Your task to perform on an android device: Open Google Chrome and click the shortcut for Amazon.com Image 0: 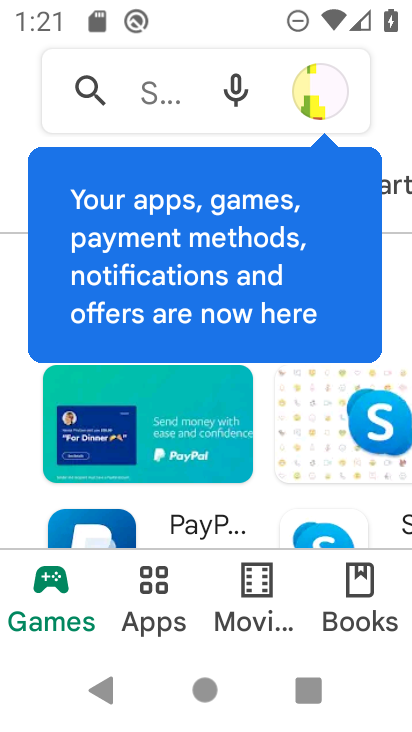
Step 0: click (173, 723)
Your task to perform on an android device: Open Google Chrome and click the shortcut for Amazon.com Image 1: 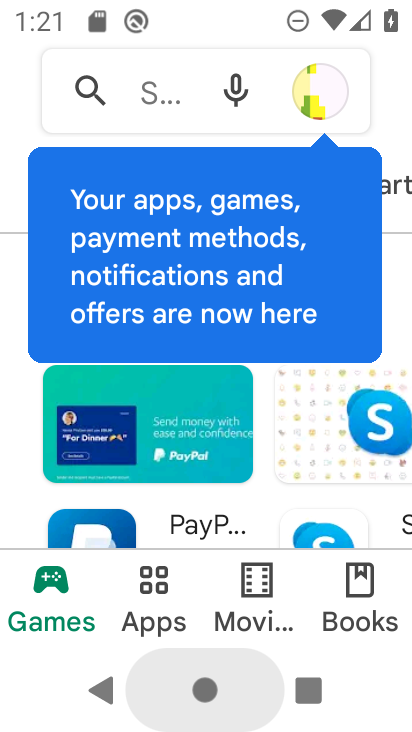
Step 1: click (208, 701)
Your task to perform on an android device: Open Google Chrome and click the shortcut for Amazon.com Image 2: 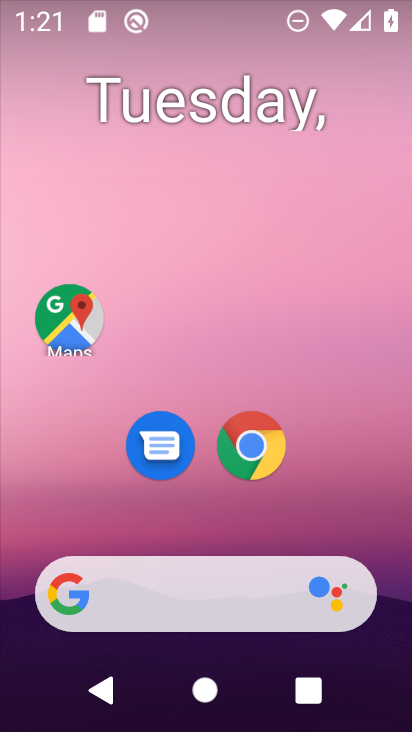
Step 2: click (239, 482)
Your task to perform on an android device: Open Google Chrome and click the shortcut for Amazon.com Image 3: 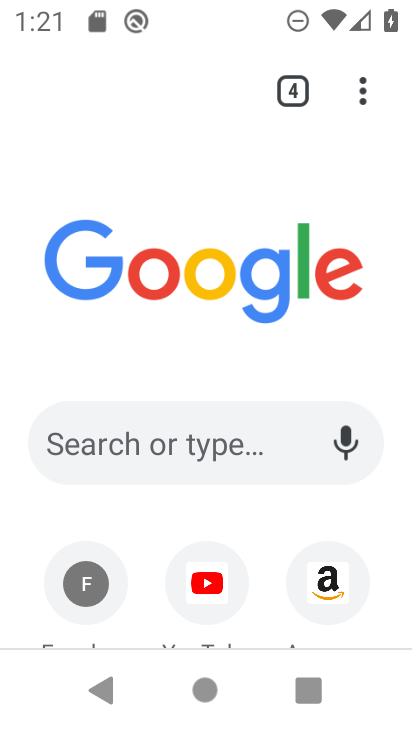
Step 3: click (336, 579)
Your task to perform on an android device: Open Google Chrome and click the shortcut for Amazon.com Image 4: 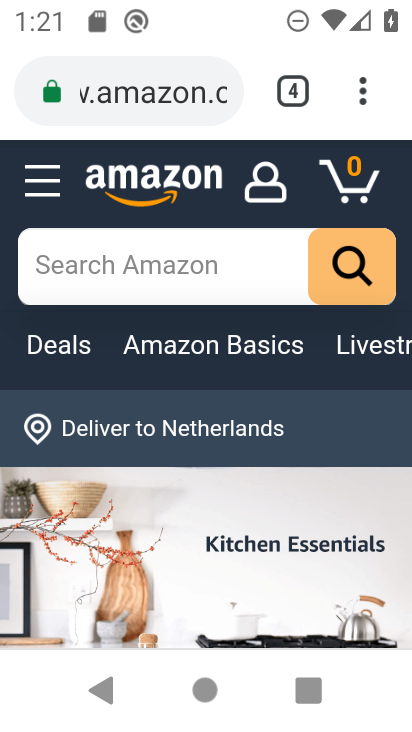
Step 4: task complete